Your task to perform on an android device: toggle javascript in the chrome app Image 0: 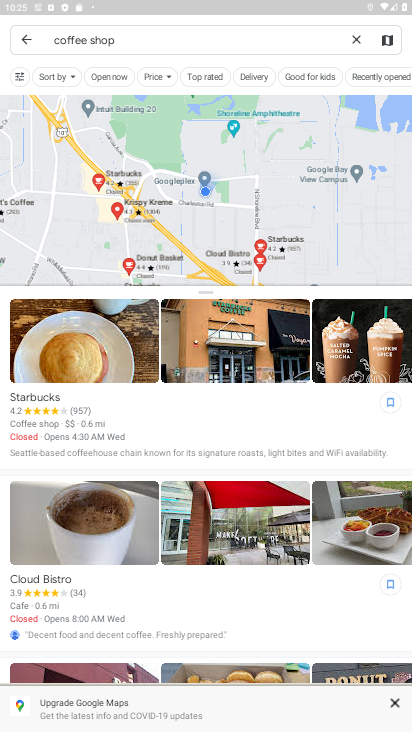
Step 0: press home button
Your task to perform on an android device: toggle javascript in the chrome app Image 1: 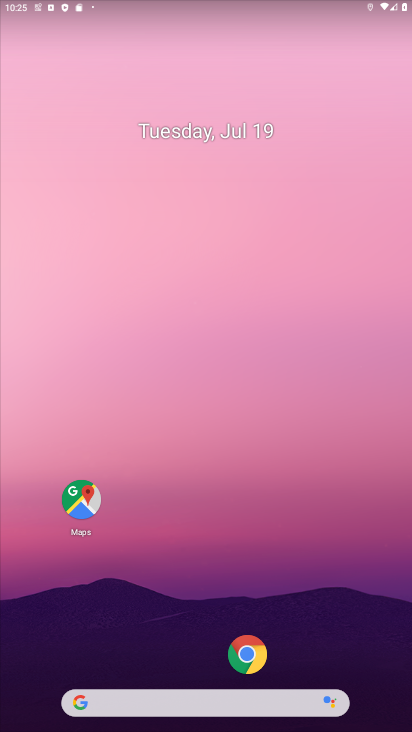
Step 1: click (249, 642)
Your task to perform on an android device: toggle javascript in the chrome app Image 2: 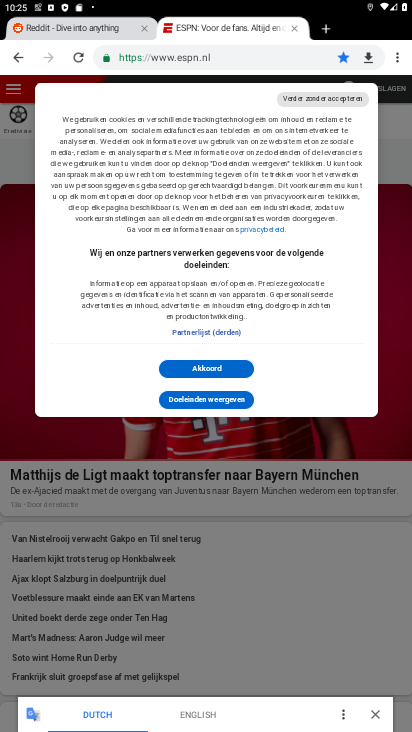
Step 2: click (392, 65)
Your task to perform on an android device: toggle javascript in the chrome app Image 3: 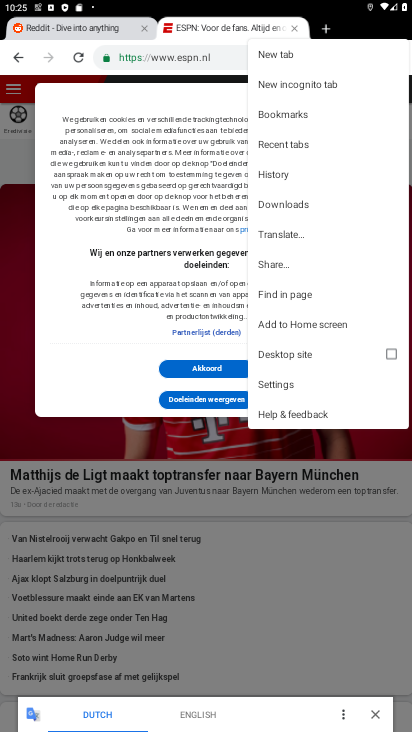
Step 3: click (282, 379)
Your task to perform on an android device: toggle javascript in the chrome app Image 4: 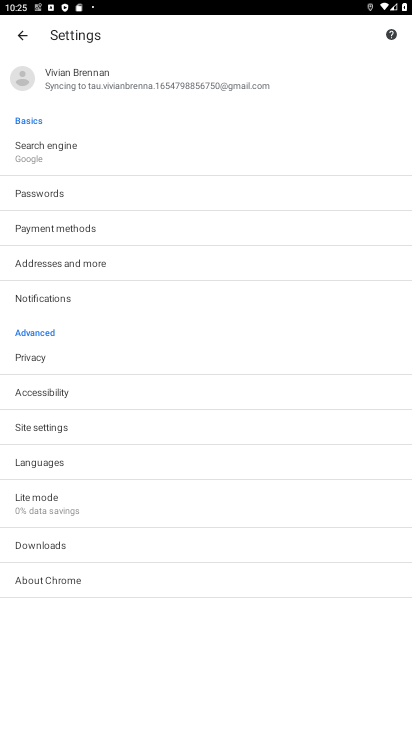
Step 4: click (116, 421)
Your task to perform on an android device: toggle javascript in the chrome app Image 5: 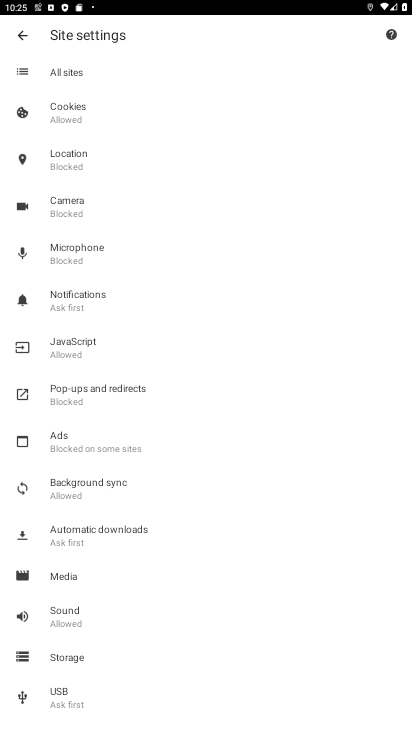
Step 5: click (112, 354)
Your task to perform on an android device: toggle javascript in the chrome app Image 6: 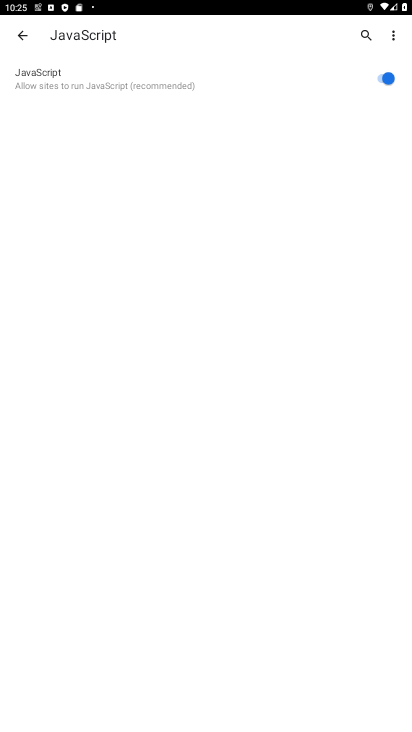
Step 6: click (377, 86)
Your task to perform on an android device: toggle javascript in the chrome app Image 7: 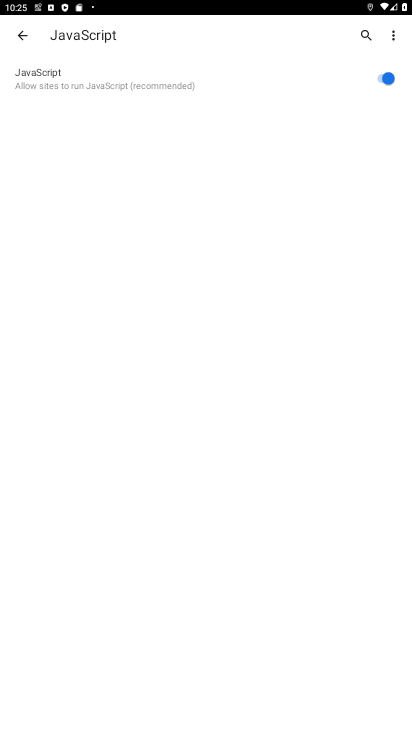
Step 7: click (377, 86)
Your task to perform on an android device: toggle javascript in the chrome app Image 8: 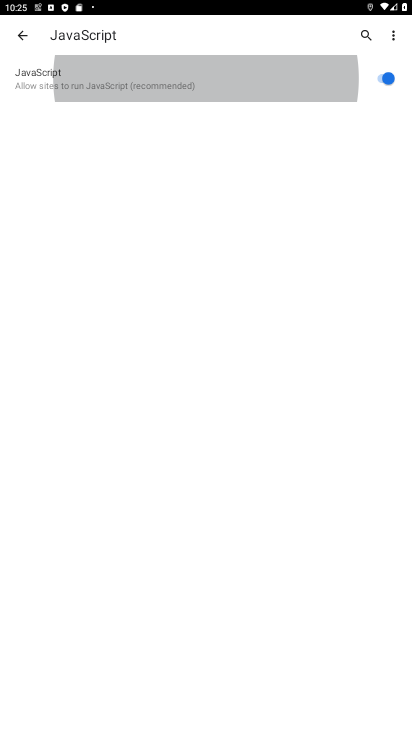
Step 8: click (377, 86)
Your task to perform on an android device: toggle javascript in the chrome app Image 9: 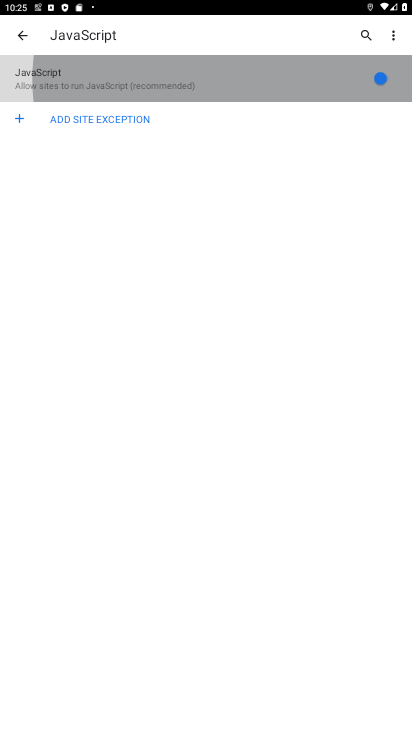
Step 9: click (377, 86)
Your task to perform on an android device: toggle javascript in the chrome app Image 10: 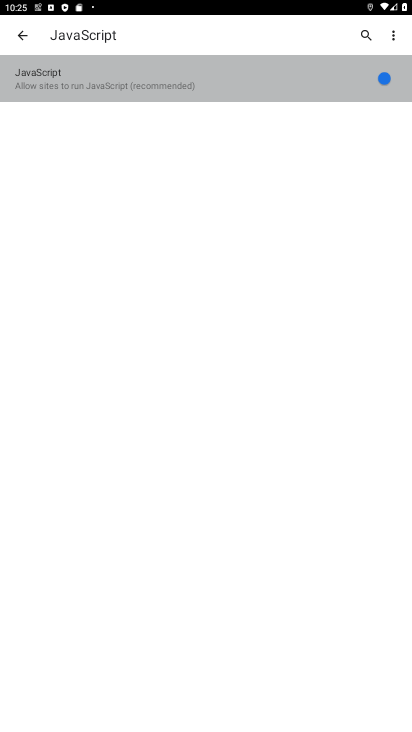
Step 10: click (377, 86)
Your task to perform on an android device: toggle javascript in the chrome app Image 11: 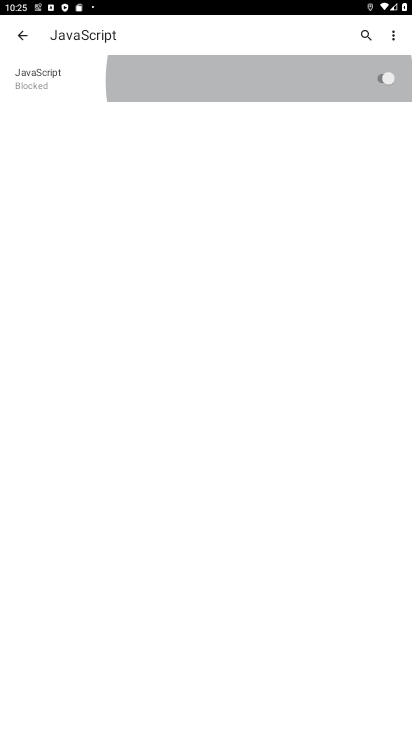
Step 11: click (377, 86)
Your task to perform on an android device: toggle javascript in the chrome app Image 12: 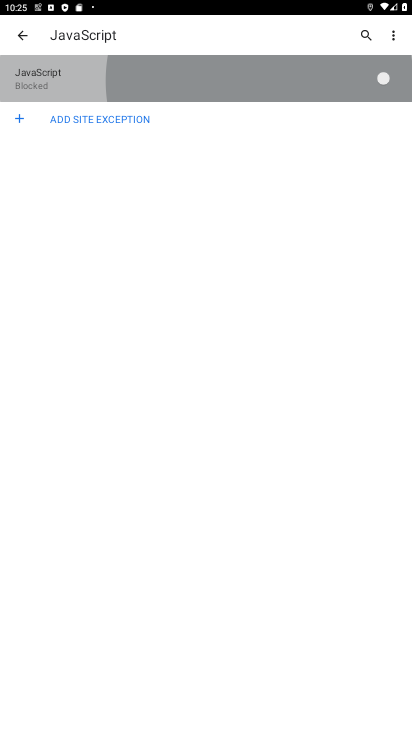
Step 12: click (377, 86)
Your task to perform on an android device: toggle javascript in the chrome app Image 13: 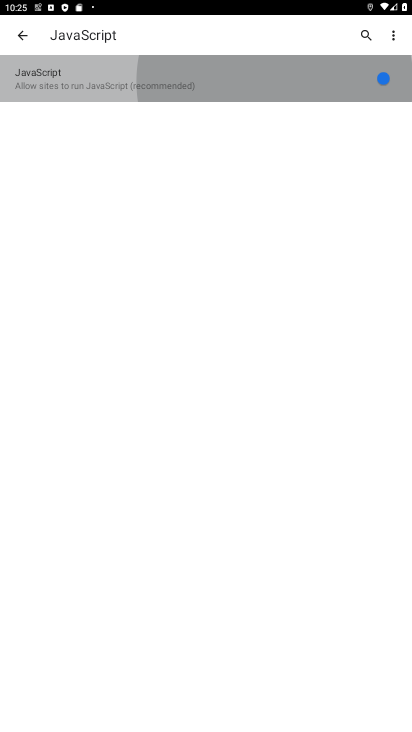
Step 13: click (377, 86)
Your task to perform on an android device: toggle javascript in the chrome app Image 14: 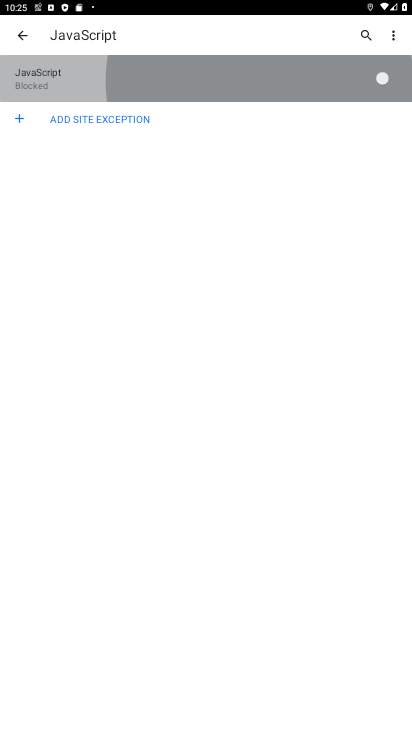
Step 14: click (377, 86)
Your task to perform on an android device: toggle javascript in the chrome app Image 15: 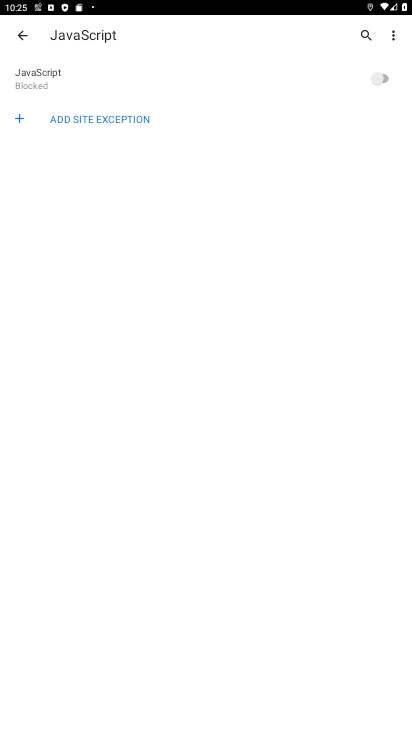
Step 15: click (377, 86)
Your task to perform on an android device: toggle javascript in the chrome app Image 16: 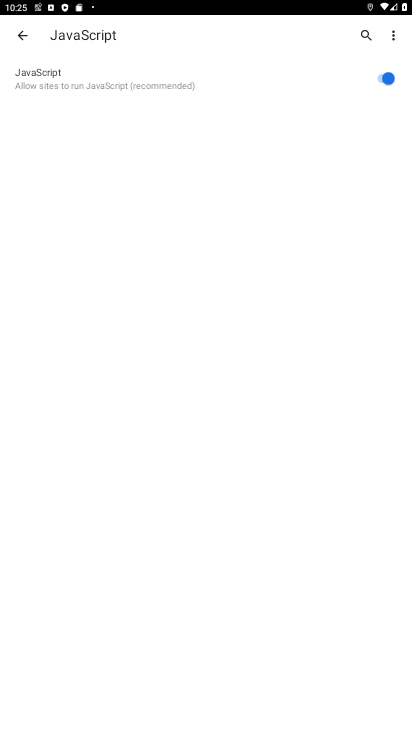
Step 16: task complete